Your task to perform on an android device: turn off data saver in the chrome app Image 0: 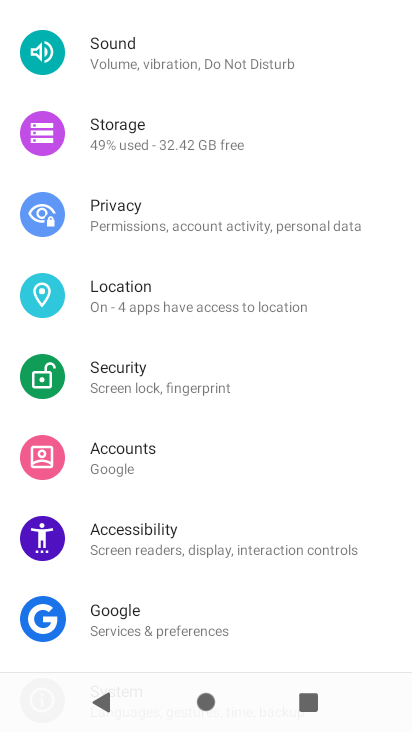
Step 0: press home button
Your task to perform on an android device: turn off data saver in the chrome app Image 1: 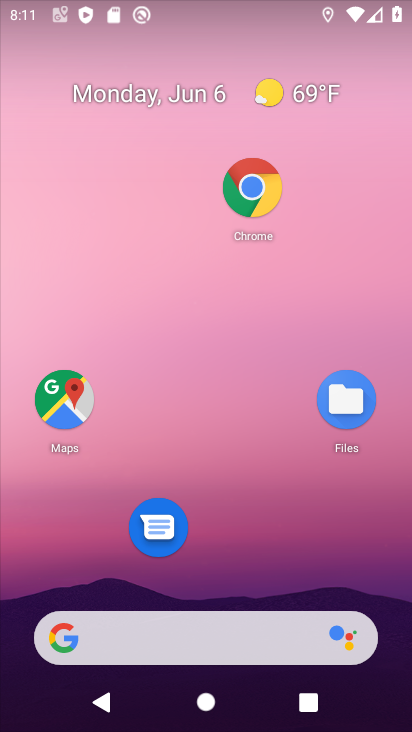
Step 1: click (252, 191)
Your task to perform on an android device: turn off data saver in the chrome app Image 2: 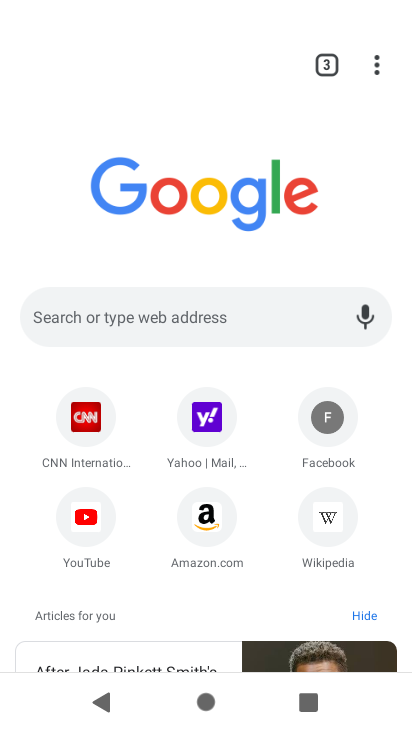
Step 2: click (365, 54)
Your task to perform on an android device: turn off data saver in the chrome app Image 3: 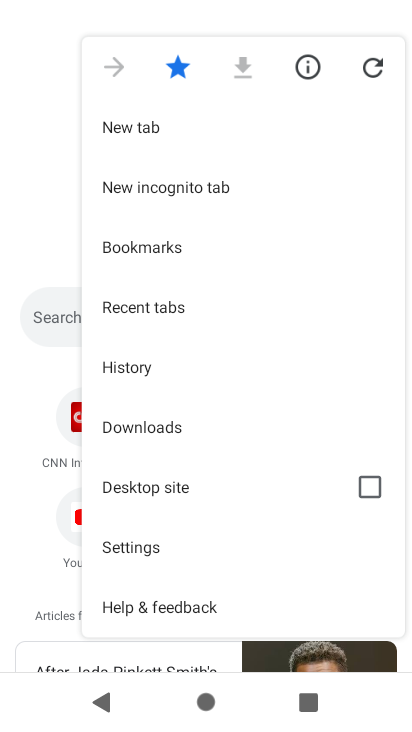
Step 3: drag from (187, 399) to (204, 112)
Your task to perform on an android device: turn off data saver in the chrome app Image 4: 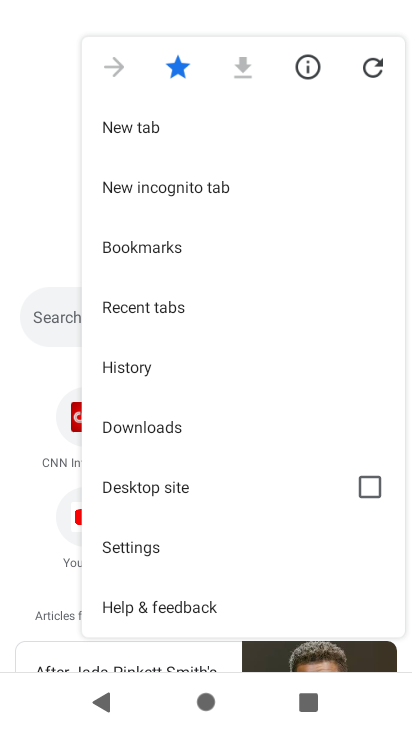
Step 4: click (135, 543)
Your task to perform on an android device: turn off data saver in the chrome app Image 5: 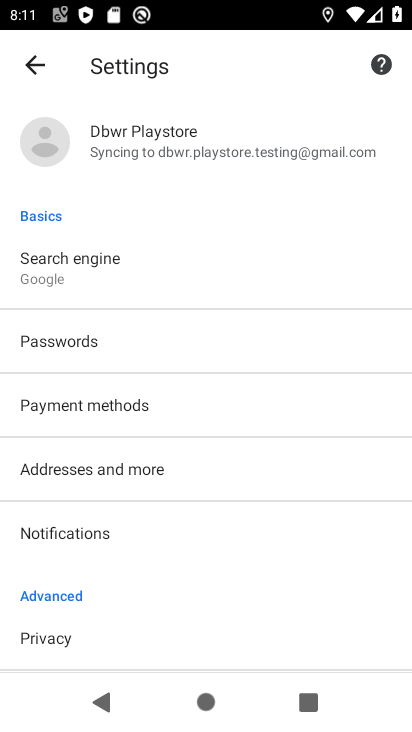
Step 5: drag from (264, 565) to (245, 139)
Your task to perform on an android device: turn off data saver in the chrome app Image 6: 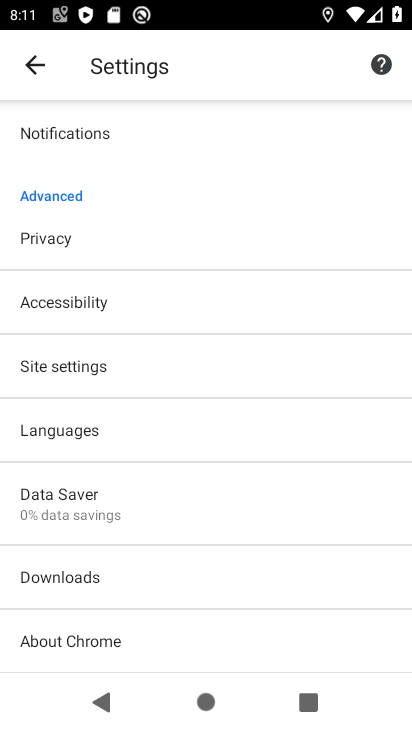
Step 6: click (72, 507)
Your task to perform on an android device: turn off data saver in the chrome app Image 7: 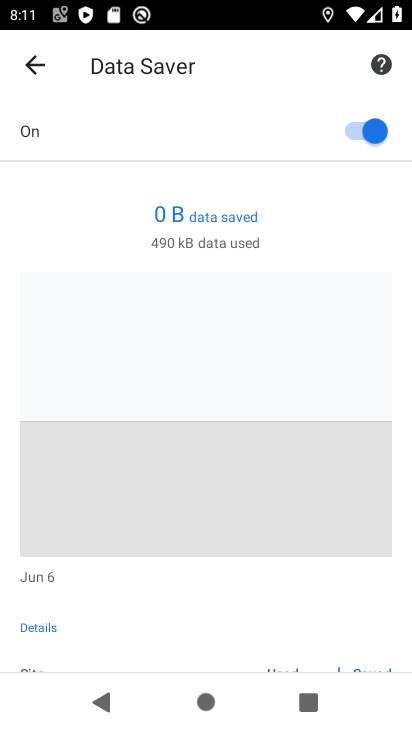
Step 7: click (355, 134)
Your task to perform on an android device: turn off data saver in the chrome app Image 8: 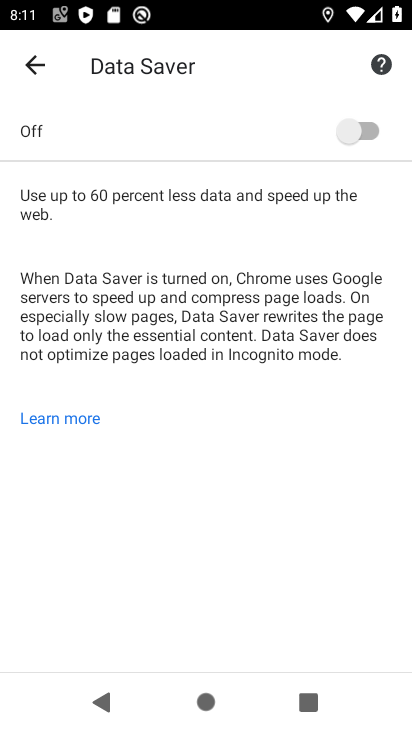
Step 8: task complete